Your task to perform on an android device: Open Chrome and go to settings Image 0: 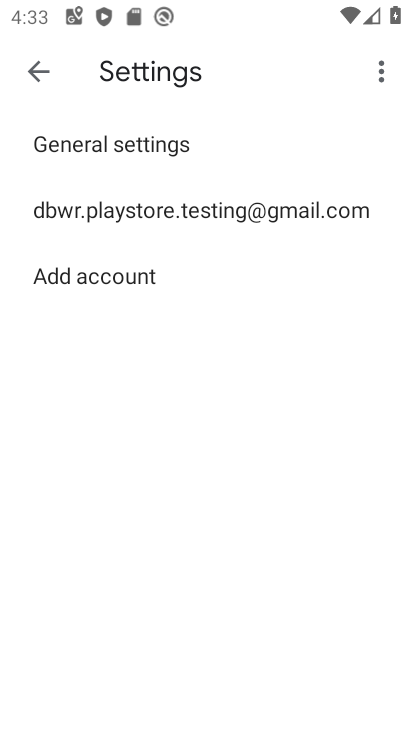
Step 0: press home button
Your task to perform on an android device: Open Chrome and go to settings Image 1: 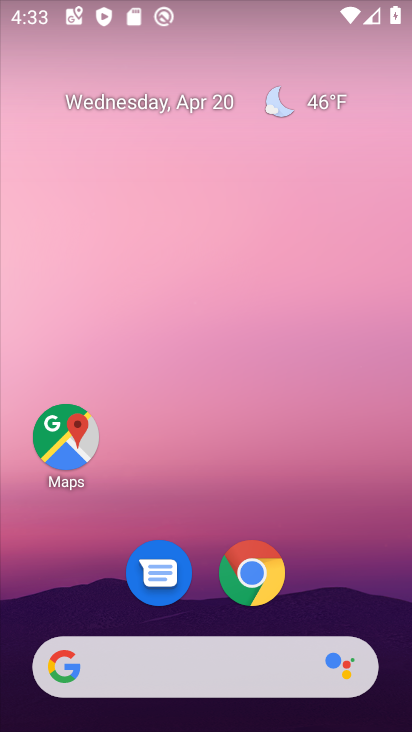
Step 1: drag from (357, 605) to (276, 227)
Your task to perform on an android device: Open Chrome and go to settings Image 2: 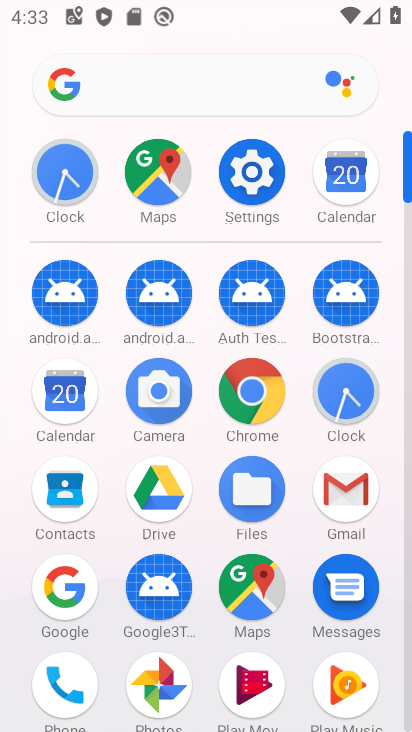
Step 2: click (251, 395)
Your task to perform on an android device: Open Chrome and go to settings Image 3: 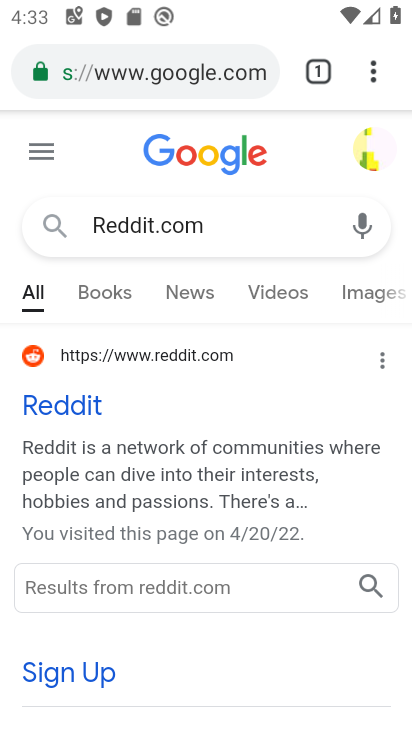
Step 3: click (372, 75)
Your task to perform on an android device: Open Chrome and go to settings Image 4: 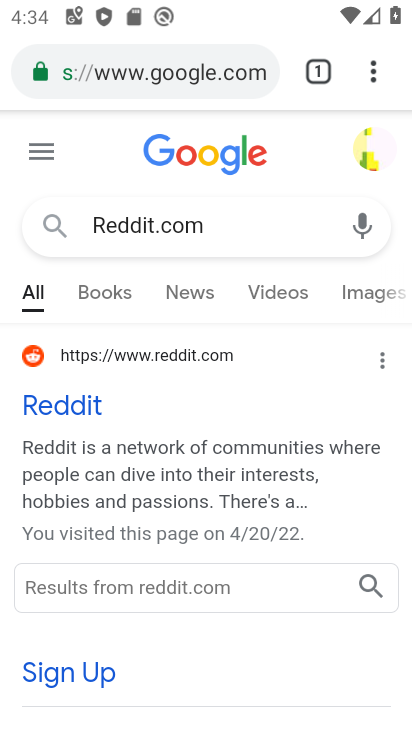
Step 4: click (372, 75)
Your task to perform on an android device: Open Chrome and go to settings Image 5: 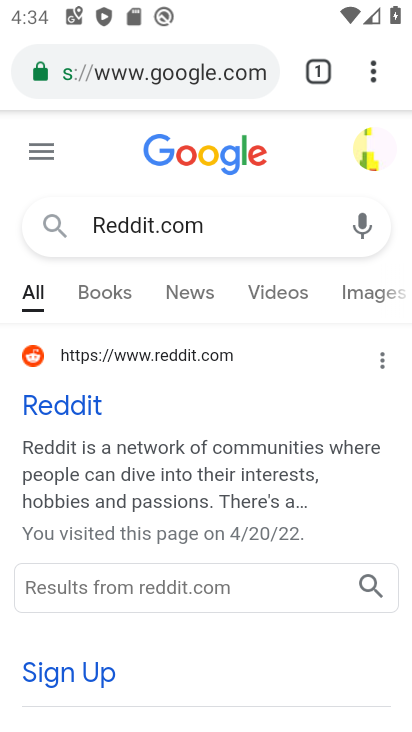
Step 5: click (372, 75)
Your task to perform on an android device: Open Chrome and go to settings Image 6: 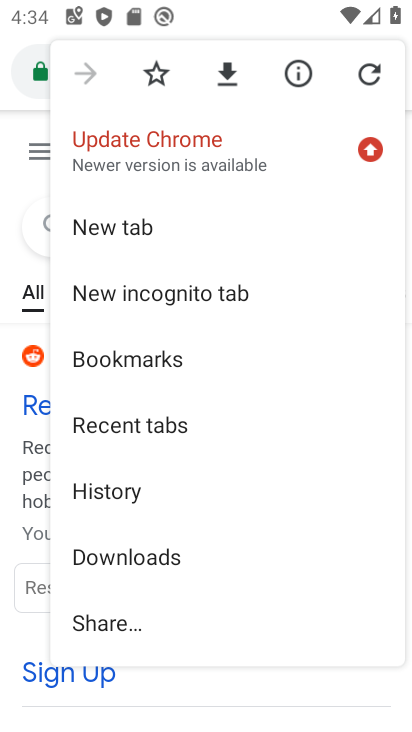
Step 6: drag from (266, 608) to (249, 254)
Your task to perform on an android device: Open Chrome and go to settings Image 7: 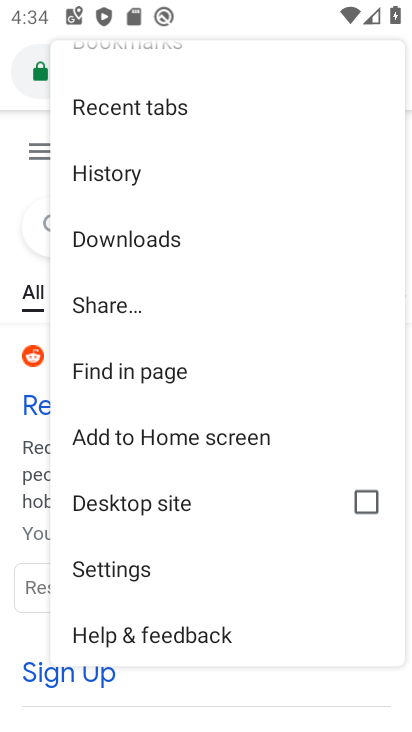
Step 7: click (82, 566)
Your task to perform on an android device: Open Chrome and go to settings Image 8: 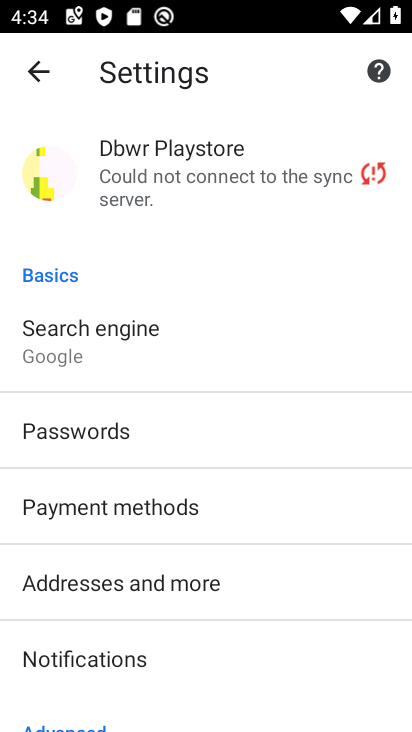
Step 8: drag from (248, 636) to (251, 375)
Your task to perform on an android device: Open Chrome and go to settings Image 9: 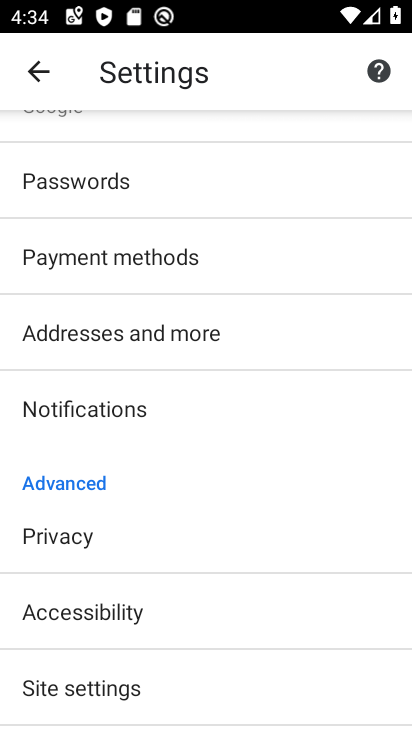
Step 9: click (269, 366)
Your task to perform on an android device: Open Chrome and go to settings Image 10: 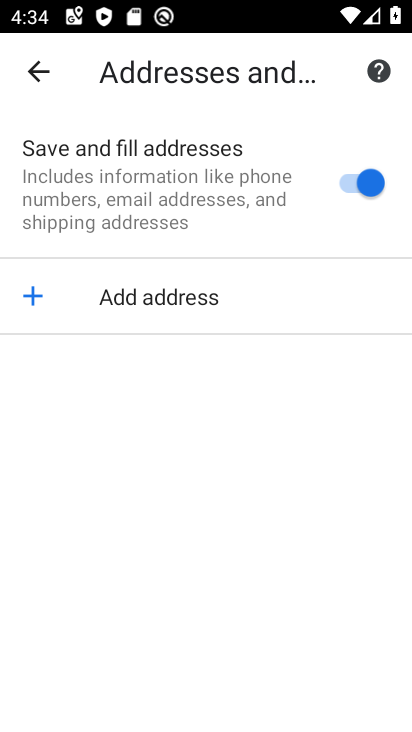
Step 10: click (35, 80)
Your task to perform on an android device: Open Chrome and go to settings Image 11: 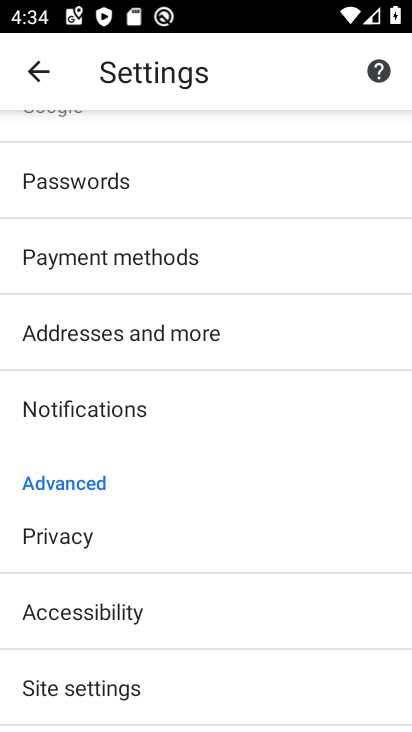
Step 11: task complete